Your task to perform on an android device: Open calendar and show me the third week of next month Image 0: 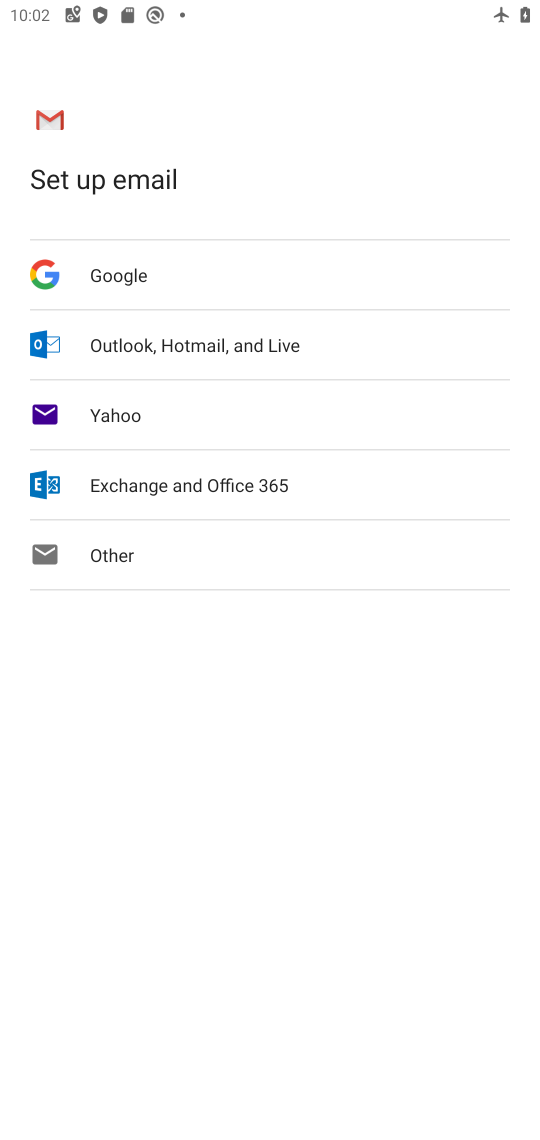
Step 0: press home button
Your task to perform on an android device: Open calendar and show me the third week of next month Image 1: 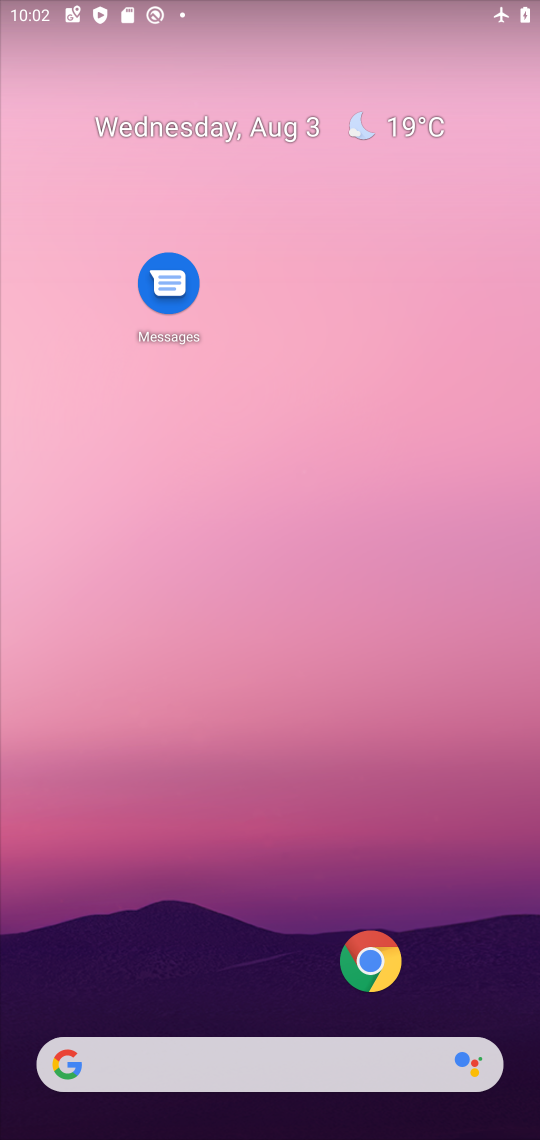
Step 1: drag from (289, 998) to (319, 208)
Your task to perform on an android device: Open calendar and show me the third week of next month Image 2: 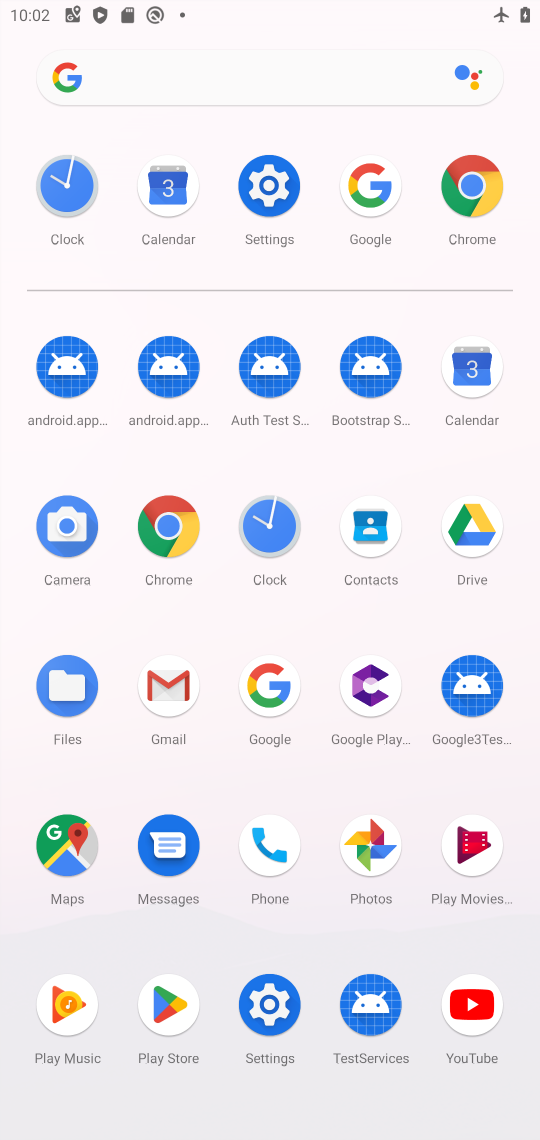
Step 2: click (487, 376)
Your task to perform on an android device: Open calendar and show me the third week of next month Image 3: 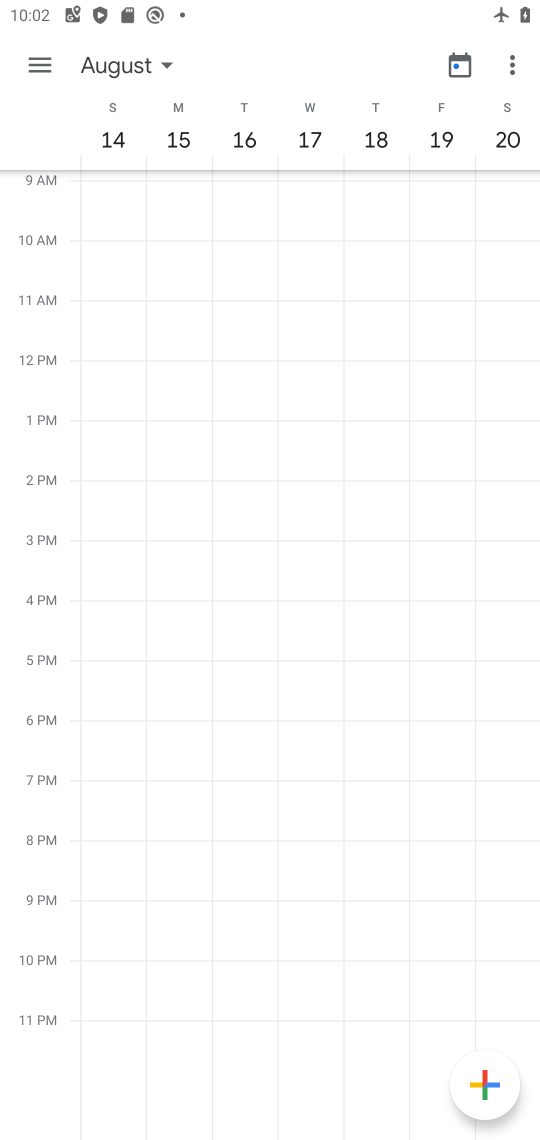
Step 3: task complete